Your task to perform on an android device: open chrome and create a bookmark for the current page Image 0: 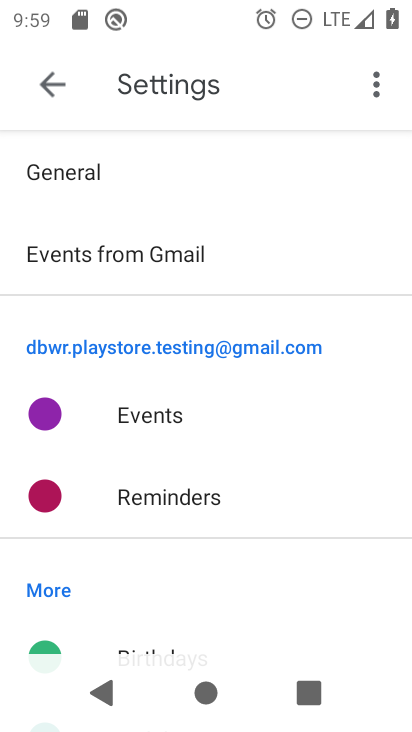
Step 0: press home button
Your task to perform on an android device: open chrome and create a bookmark for the current page Image 1: 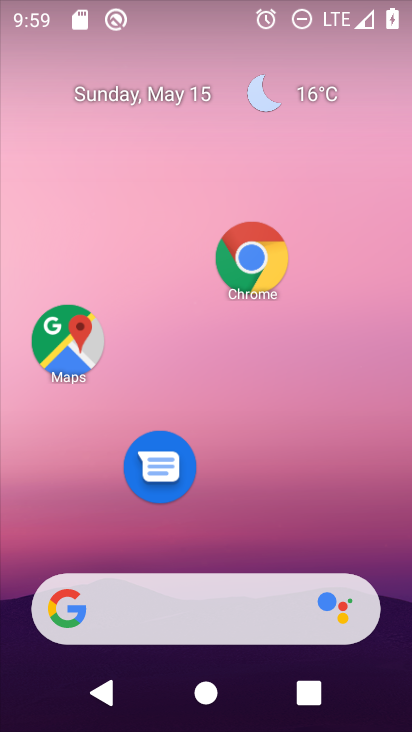
Step 1: click (245, 255)
Your task to perform on an android device: open chrome and create a bookmark for the current page Image 2: 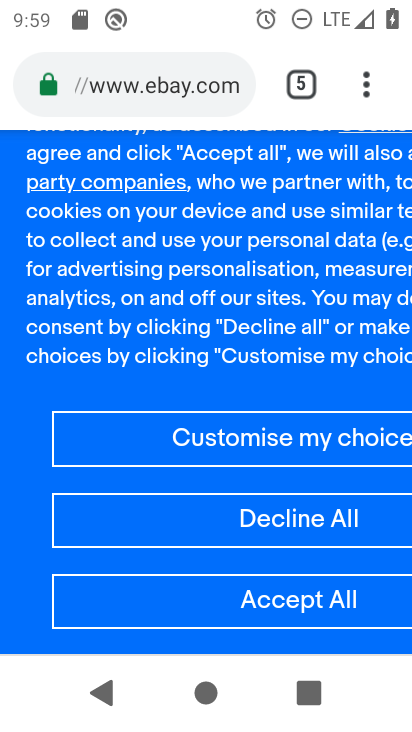
Step 2: click (357, 141)
Your task to perform on an android device: open chrome and create a bookmark for the current page Image 3: 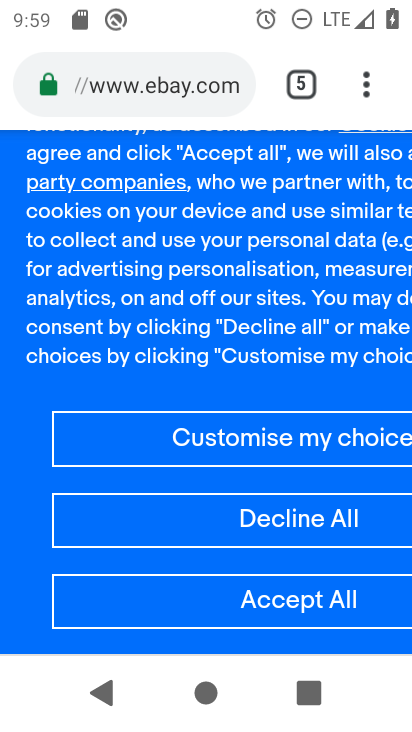
Step 3: click (358, 101)
Your task to perform on an android device: open chrome and create a bookmark for the current page Image 4: 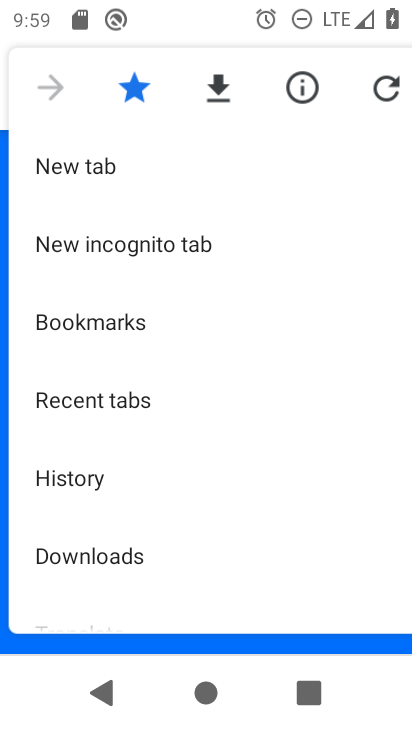
Step 4: task complete